Your task to perform on an android device: add a contact Image 0: 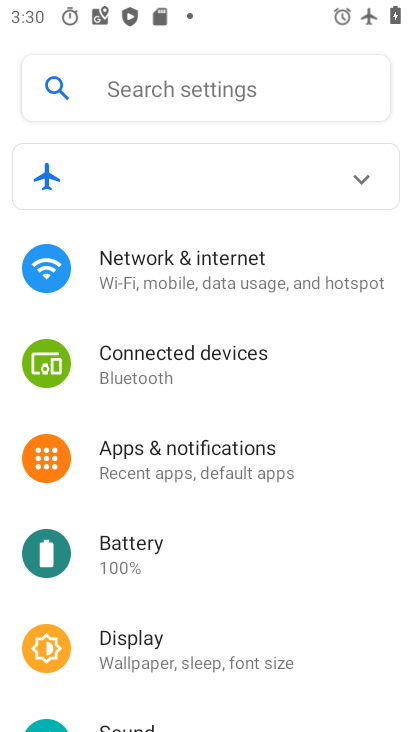
Step 0: press home button
Your task to perform on an android device: add a contact Image 1: 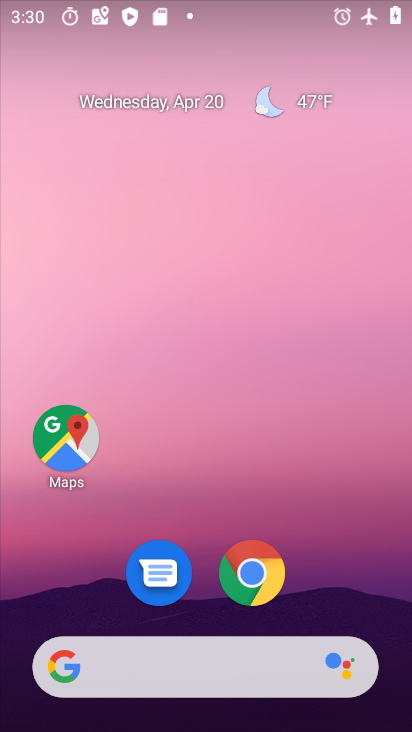
Step 1: drag from (208, 721) to (228, 90)
Your task to perform on an android device: add a contact Image 2: 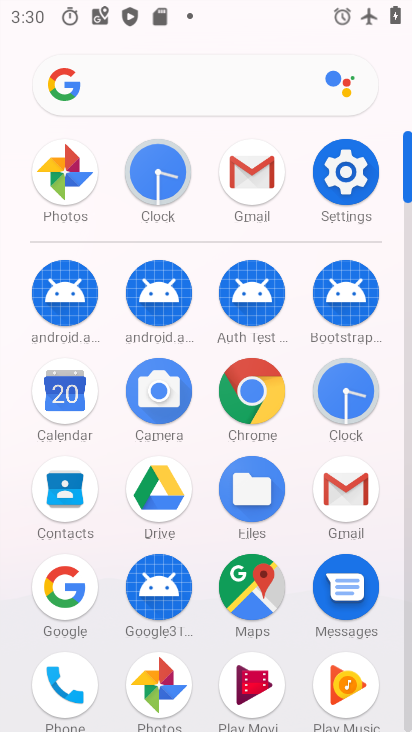
Step 2: click (62, 489)
Your task to perform on an android device: add a contact Image 3: 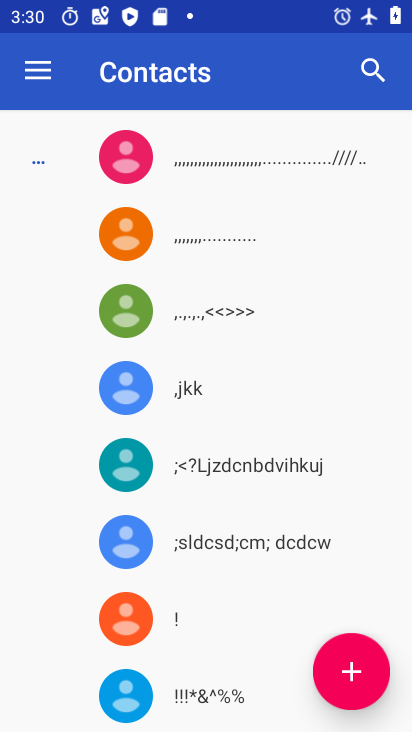
Step 3: click (348, 670)
Your task to perform on an android device: add a contact Image 4: 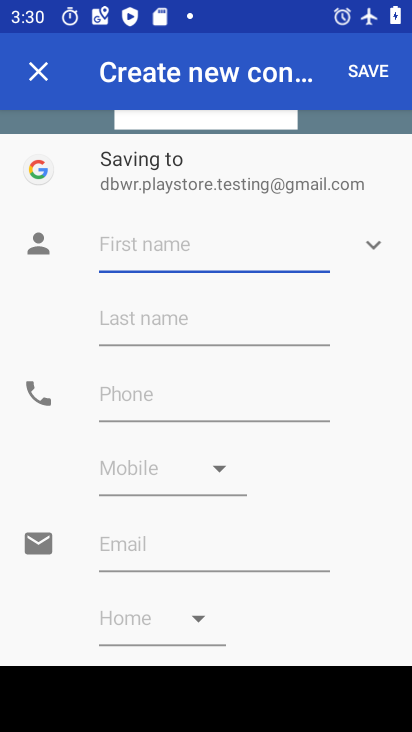
Step 4: type "rider"
Your task to perform on an android device: add a contact Image 5: 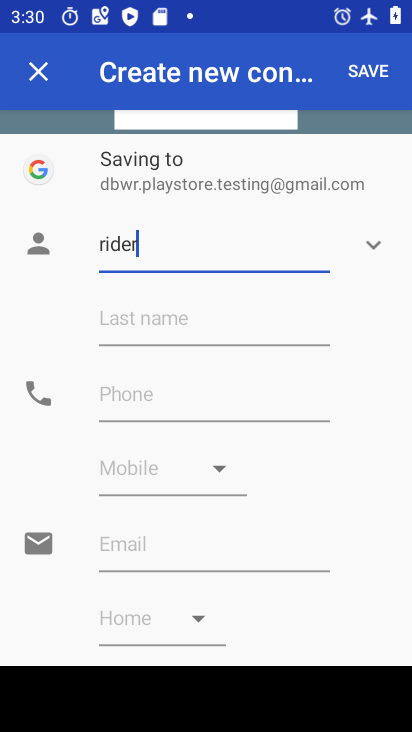
Step 5: type ""
Your task to perform on an android device: add a contact Image 6: 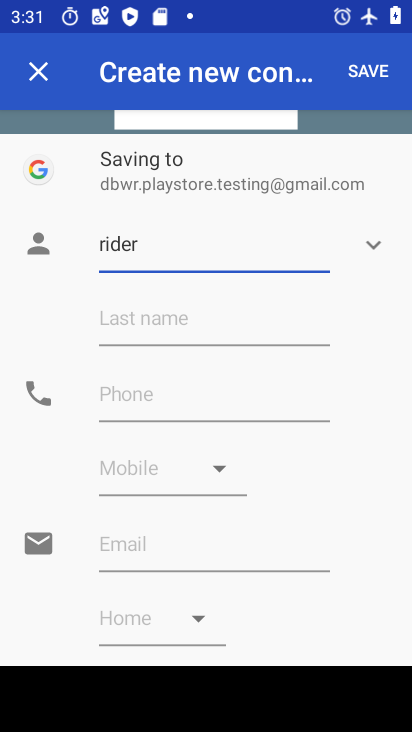
Step 6: click (140, 389)
Your task to perform on an android device: add a contact Image 7: 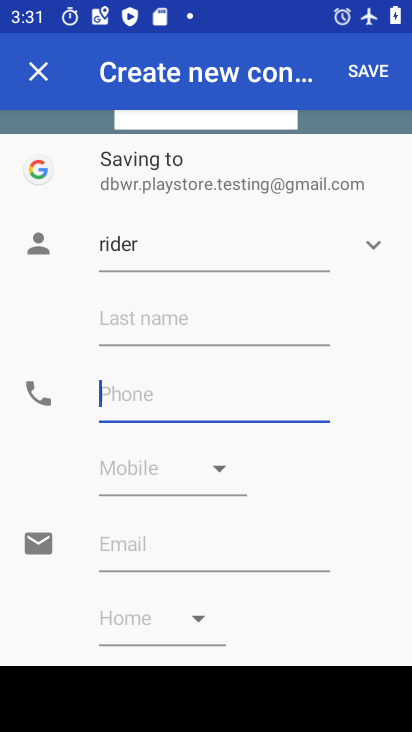
Step 7: type "9876543"
Your task to perform on an android device: add a contact Image 8: 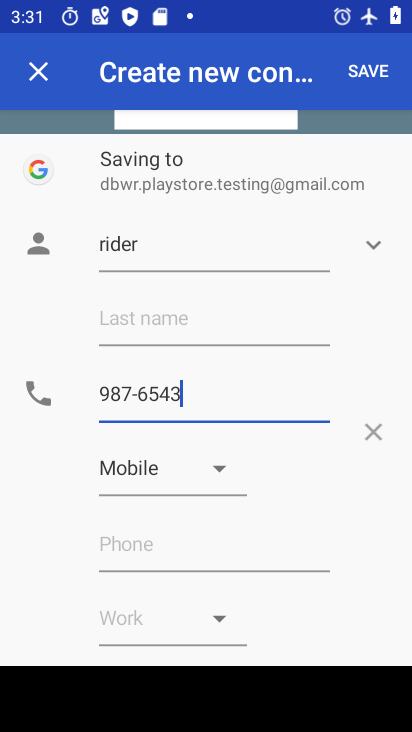
Step 8: click (377, 71)
Your task to perform on an android device: add a contact Image 9: 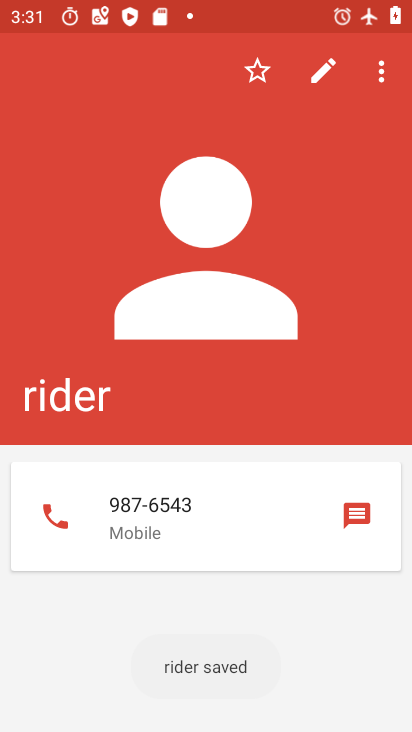
Step 9: task complete